Your task to perform on an android device: Play the last video I watched on Youtube Image 0: 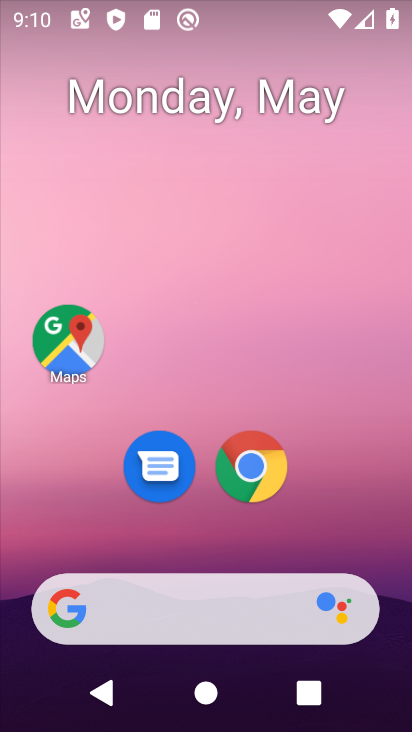
Step 0: press home button
Your task to perform on an android device: Play the last video I watched on Youtube Image 1: 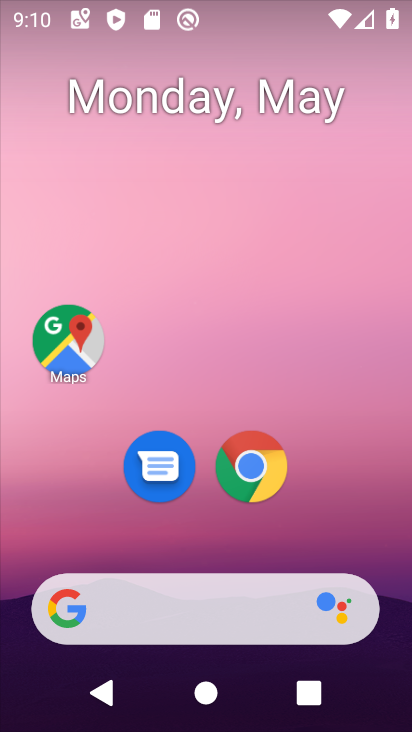
Step 1: drag from (250, 644) to (273, 87)
Your task to perform on an android device: Play the last video I watched on Youtube Image 2: 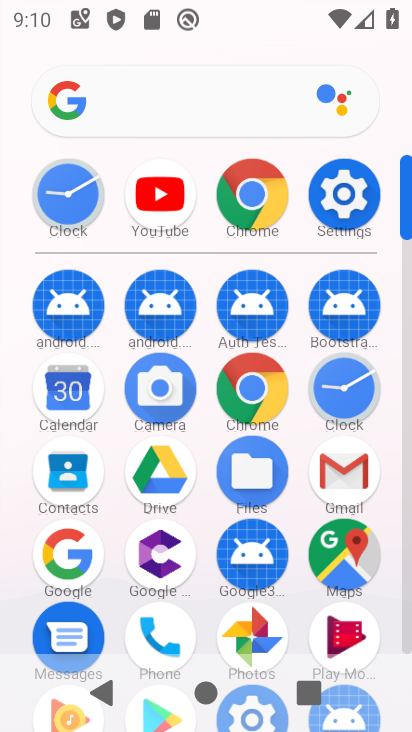
Step 2: drag from (119, 519) to (126, 213)
Your task to perform on an android device: Play the last video I watched on Youtube Image 3: 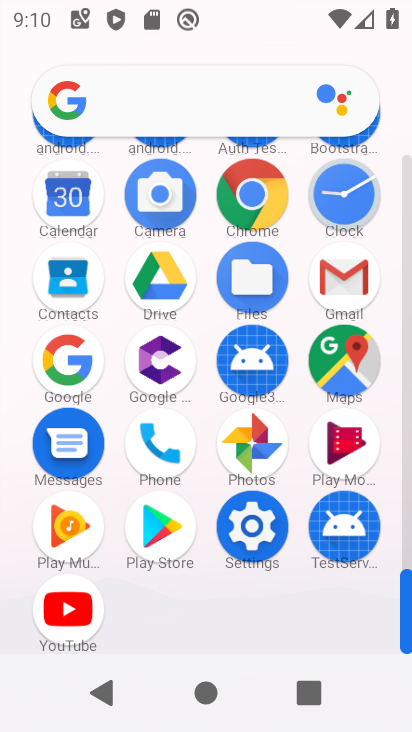
Step 3: click (56, 599)
Your task to perform on an android device: Play the last video I watched on Youtube Image 4: 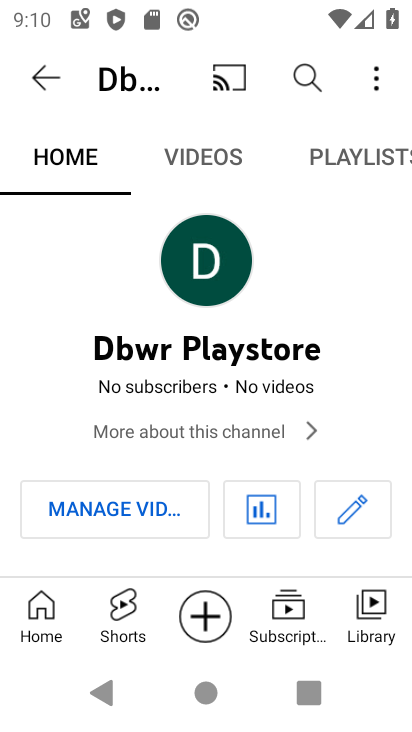
Step 4: task complete